Your task to perform on an android device: Turn on the flashlight Image 0: 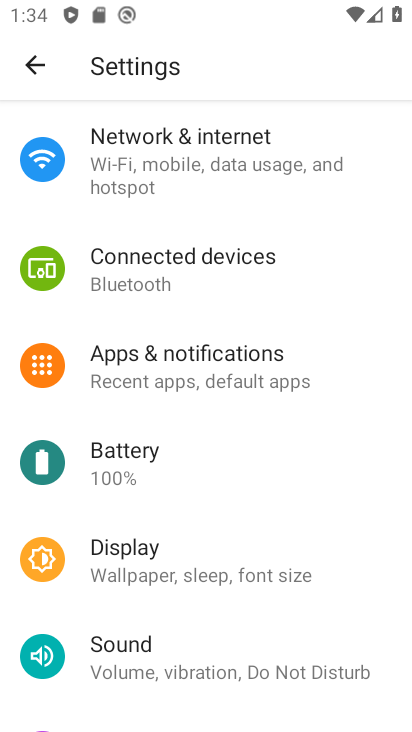
Step 0: click (161, 63)
Your task to perform on an android device: Turn on the flashlight Image 1: 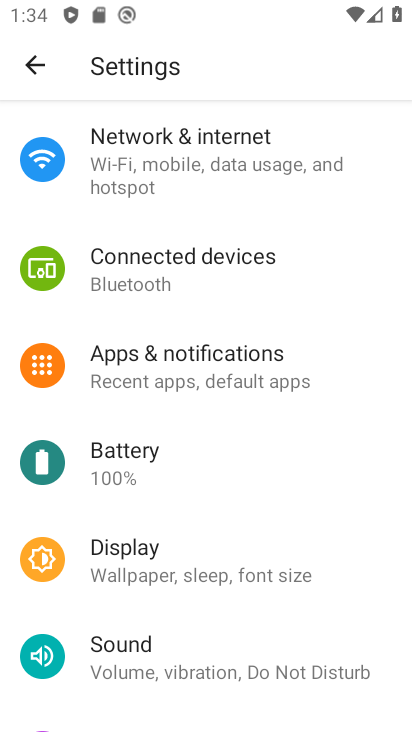
Step 1: drag from (227, 224) to (214, 729)
Your task to perform on an android device: Turn on the flashlight Image 2: 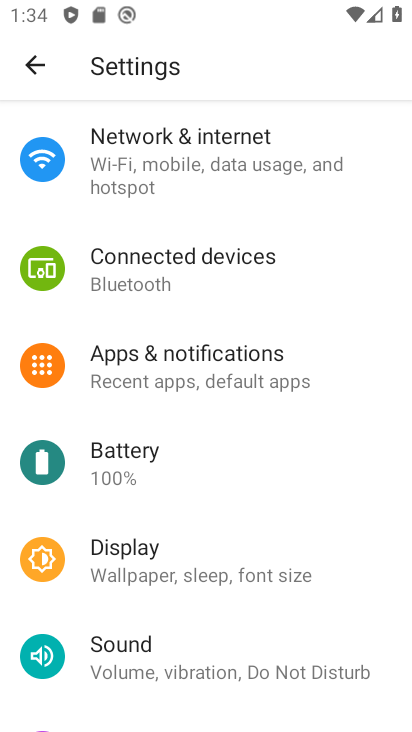
Step 2: drag from (220, 253) to (207, 705)
Your task to perform on an android device: Turn on the flashlight Image 3: 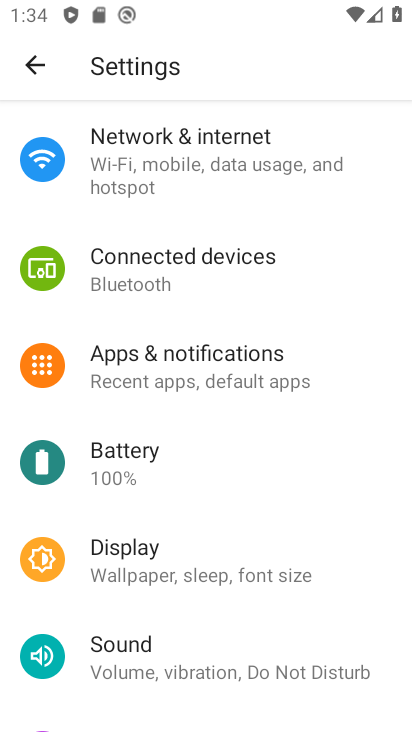
Step 3: click (43, 53)
Your task to perform on an android device: Turn on the flashlight Image 4: 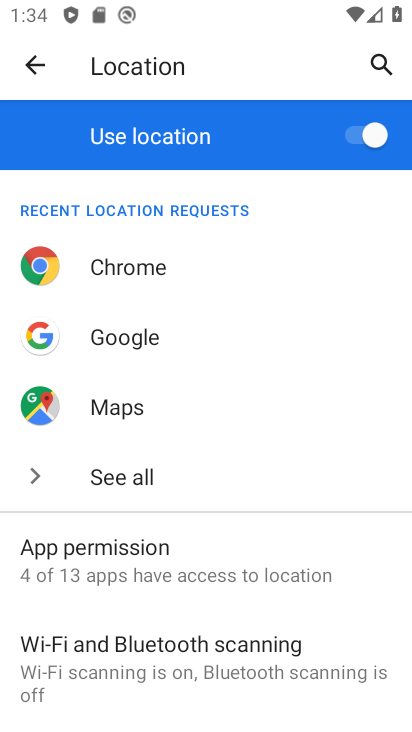
Step 4: click (38, 60)
Your task to perform on an android device: Turn on the flashlight Image 5: 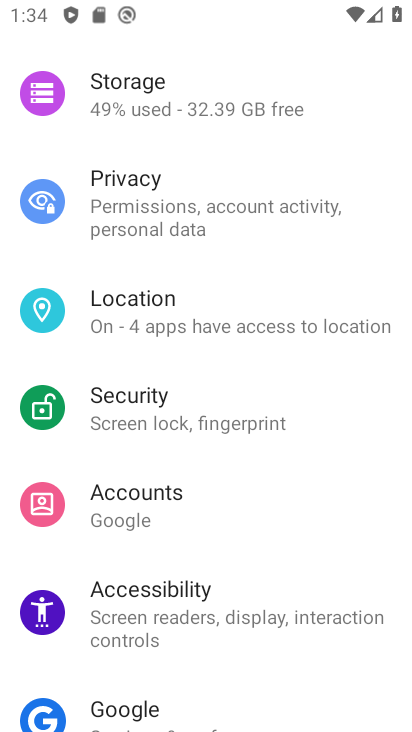
Step 5: drag from (262, 176) to (265, 656)
Your task to perform on an android device: Turn on the flashlight Image 6: 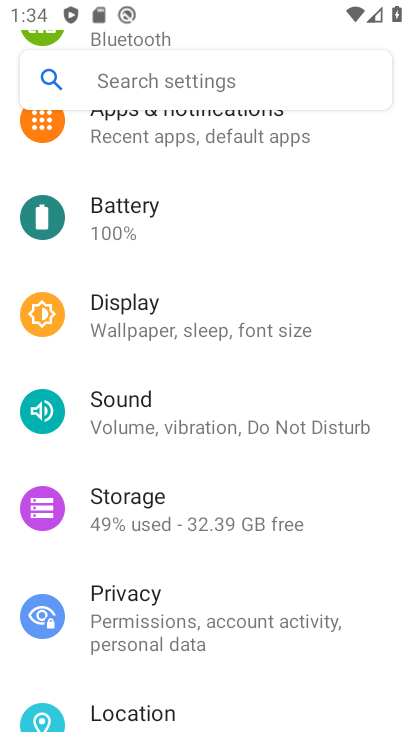
Step 6: click (152, 73)
Your task to perform on an android device: Turn on the flashlight Image 7: 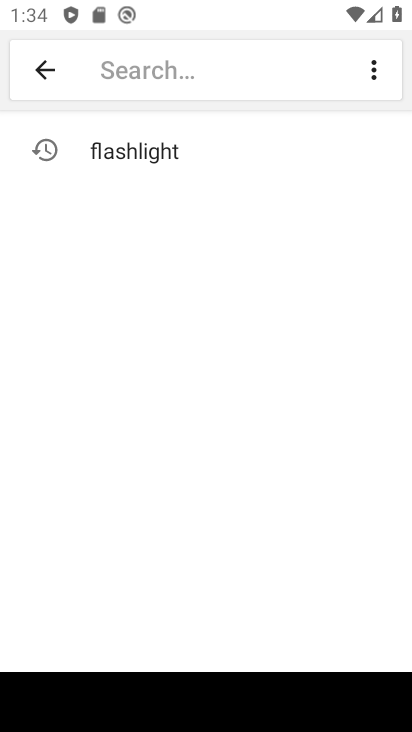
Step 7: type "flashlight"
Your task to perform on an android device: Turn on the flashlight Image 8: 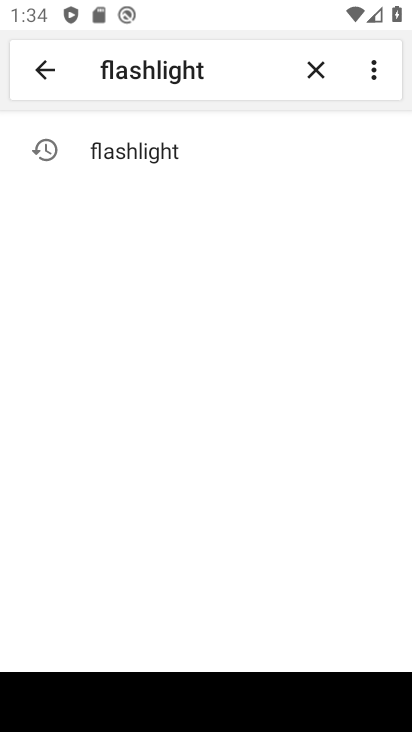
Step 8: click (192, 150)
Your task to perform on an android device: Turn on the flashlight Image 9: 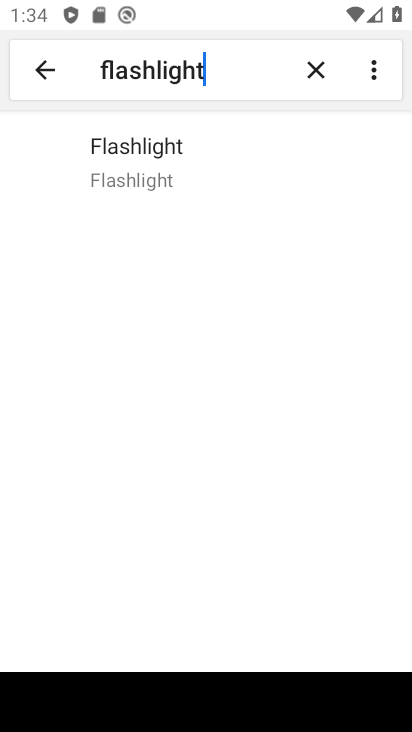
Step 9: click (133, 145)
Your task to perform on an android device: Turn on the flashlight Image 10: 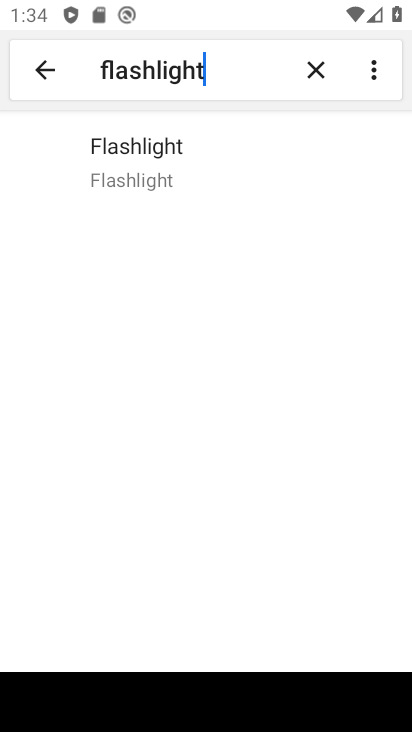
Step 10: task complete